Your task to perform on an android device: turn on javascript in the chrome app Image 0: 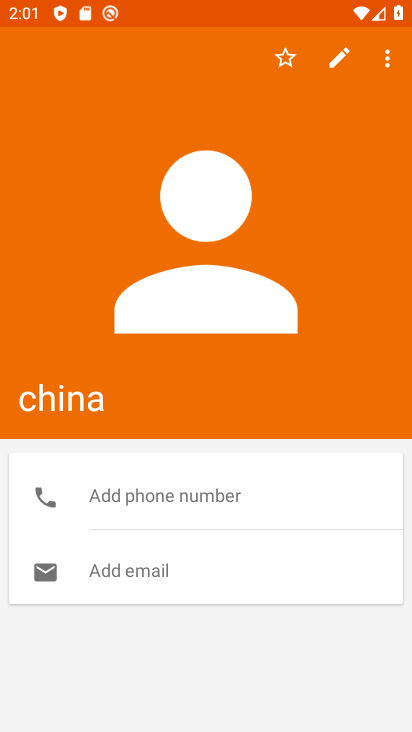
Step 0: press home button
Your task to perform on an android device: turn on javascript in the chrome app Image 1: 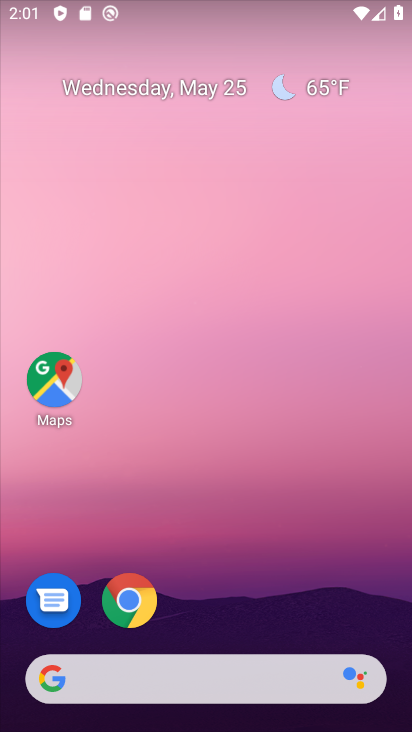
Step 1: click (127, 599)
Your task to perform on an android device: turn on javascript in the chrome app Image 2: 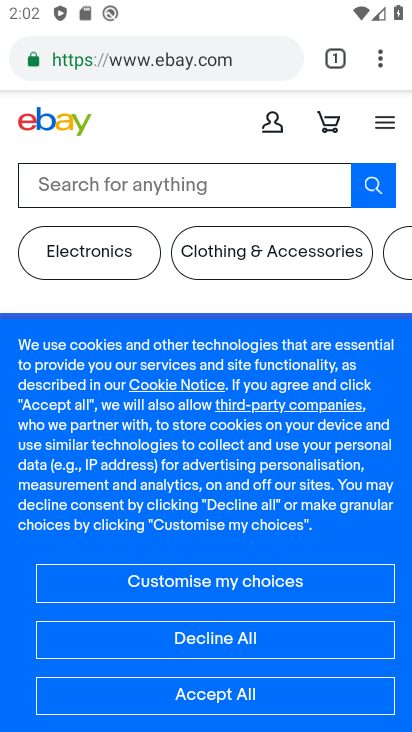
Step 2: drag from (385, 59) to (203, 631)
Your task to perform on an android device: turn on javascript in the chrome app Image 3: 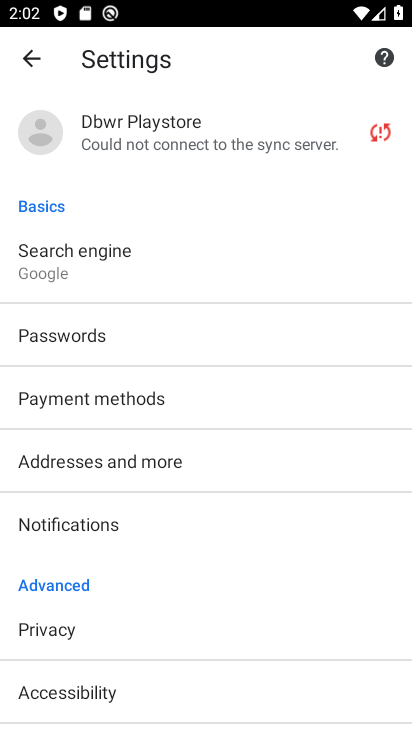
Step 3: drag from (175, 629) to (186, 115)
Your task to perform on an android device: turn on javascript in the chrome app Image 4: 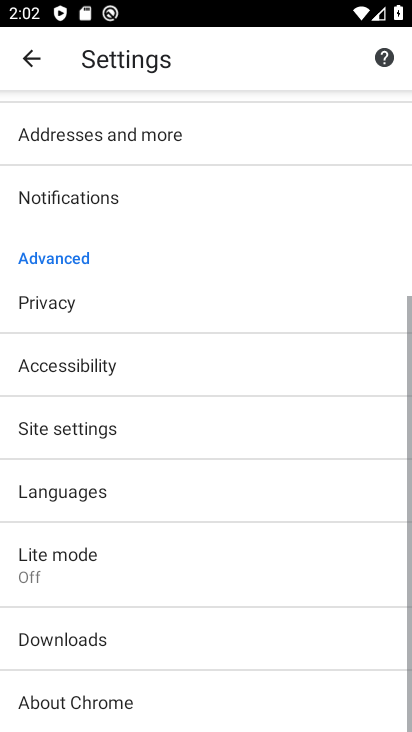
Step 4: click (99, 438)
Your task to perform on an android device: turn on javascript in the chrome app Image 5: 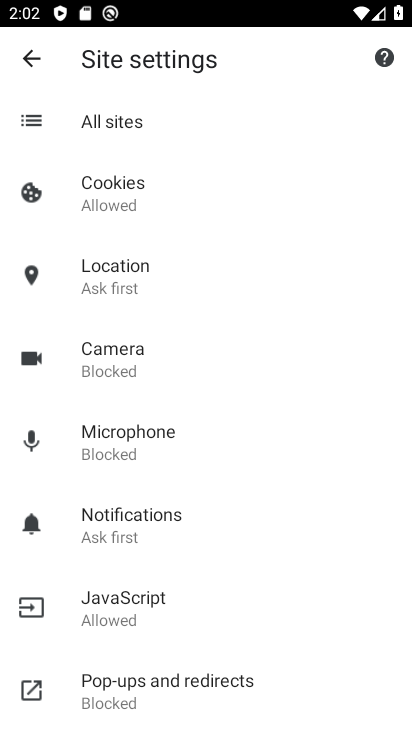
Step 5: click (139, 613)
Your task to perform on an android device: turn on javascript in the chrome app Image 6: 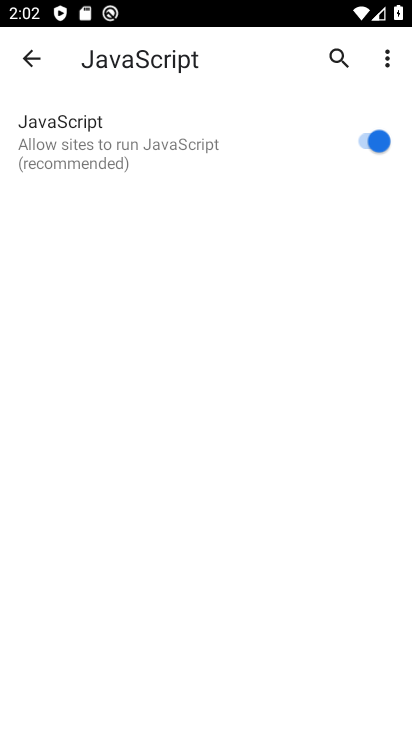
Step 6: task complete